Your task to perform on an android device: Go to Google maps Image 0: 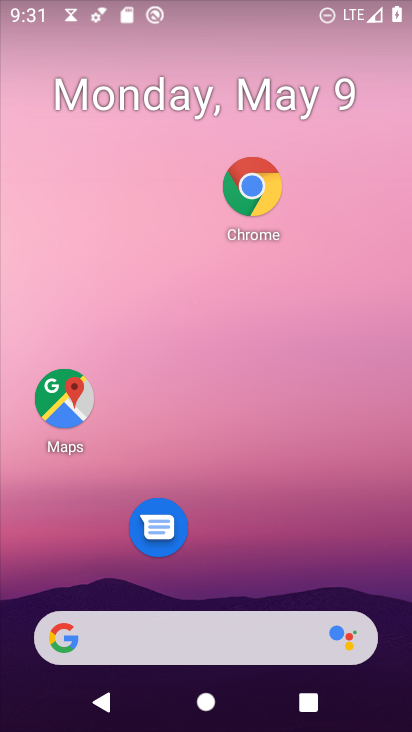
Step 0: click (62, 392)
Your task to perform on an android device: Go to Google maps Image 1: 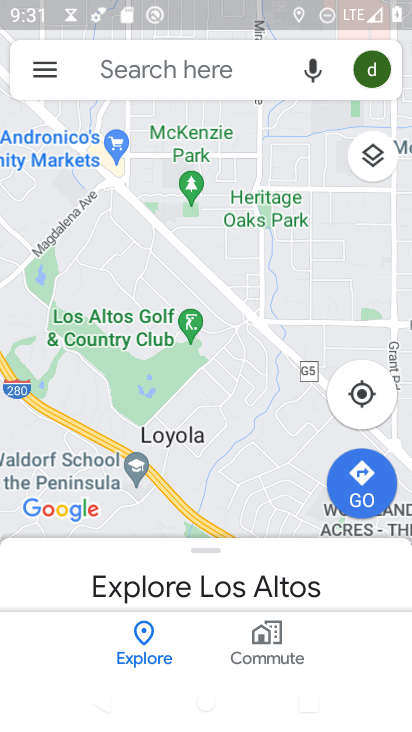
Step 1: task complete